Your task to perform on an android device: Go to wifi settings Image 0: 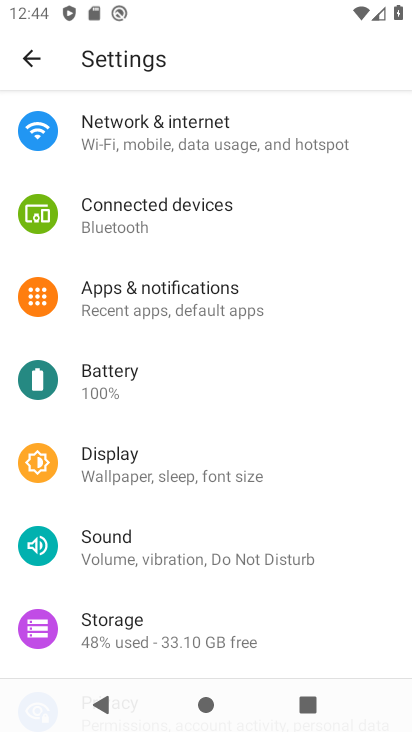
Step 0: drag from (301, 292) to (253, 518)
Your task to perform on an android device: Go to wifi settings Image 1: 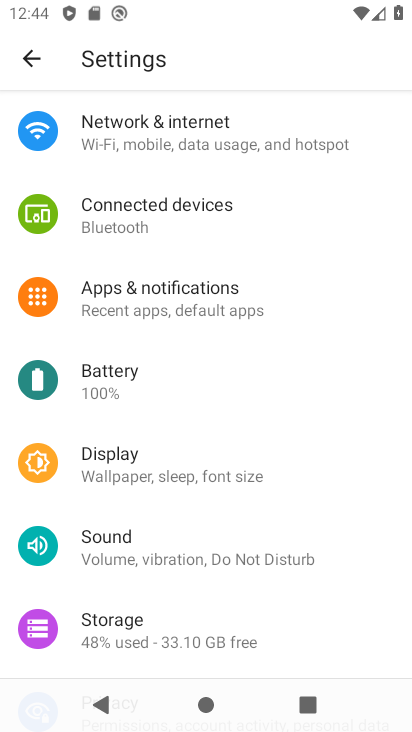
Step 1: drag from (261, 553) to (244, 702)
Your task to perform on an android device: Go to wifi settings Image 2: 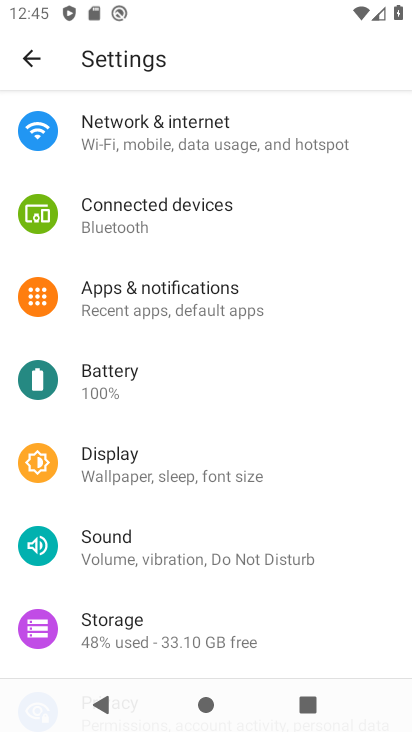
Step 2: drag from (295, 410) to (273, 669)
Your task to perform on an android device: Go to wifi settings Image 3: 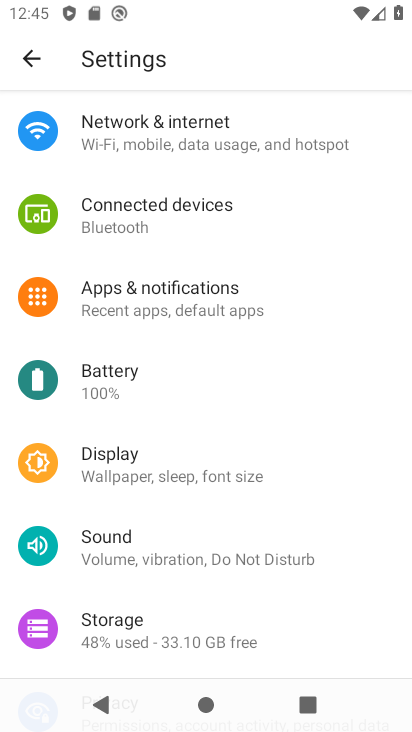
Step 3: click (244, 151)
Your task to perform on an android device: Go to wifi settings Image 4: 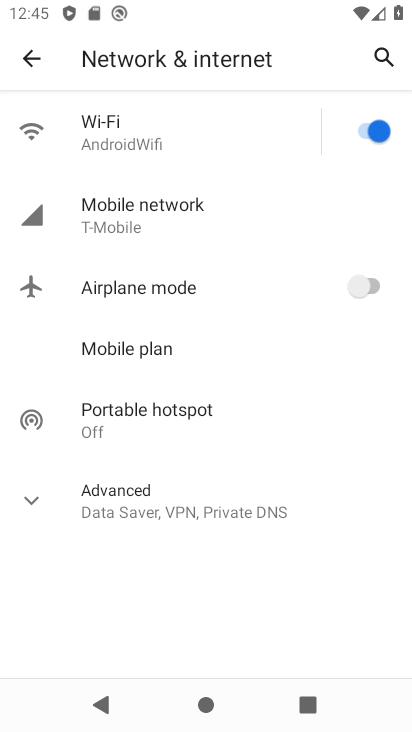
Step 4: click (188, 141)
Your task to perform on an android device: Go to wifi settings Image 5: 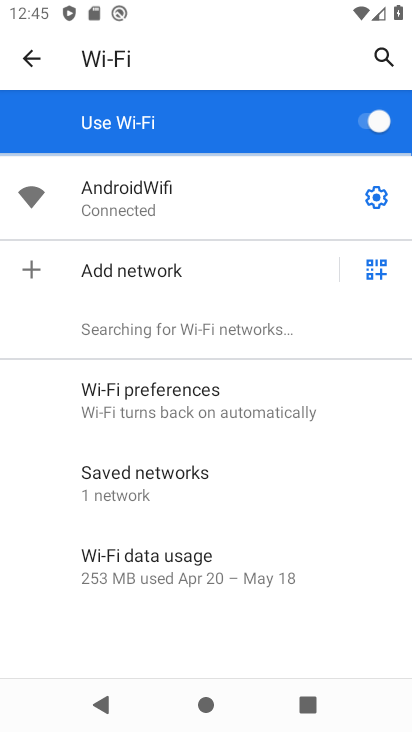
Step 5: task complete